Your task to perform on an android device: turn on location history Image 0: 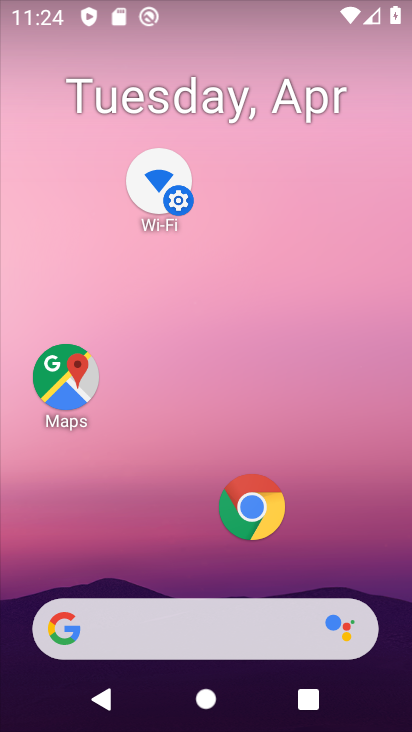
Step 0: drag from (98, 665) to (274, 334)
Your task to perform on an android device: turn on location history Image 1: 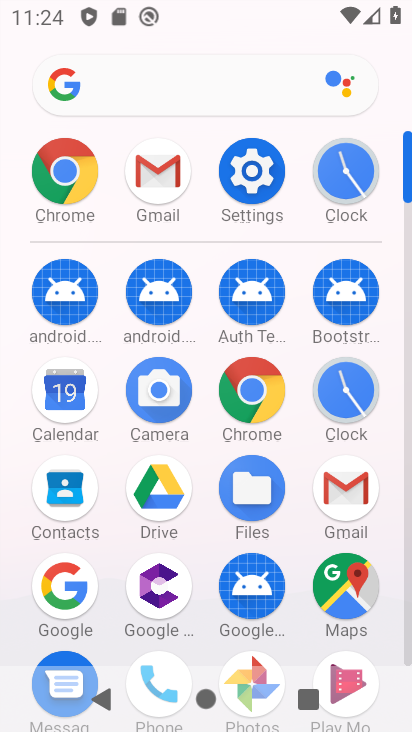
Step 1: click (258, 179)
Your task to perform on an android device: turn on location history Image 2: 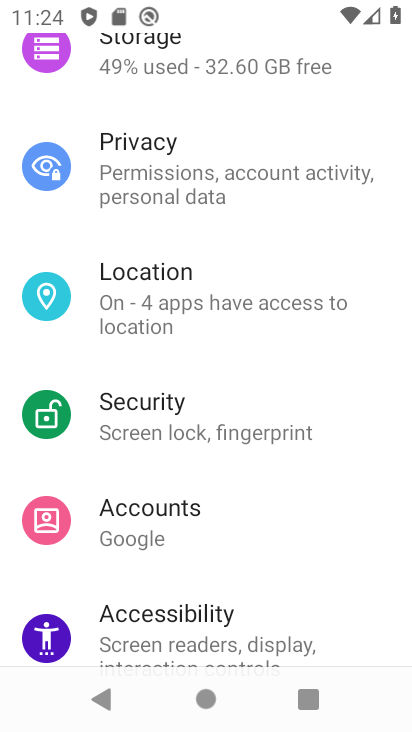
Step 2: click (225, 301)
Your task to perform on an android device: turn on location history Image 3: 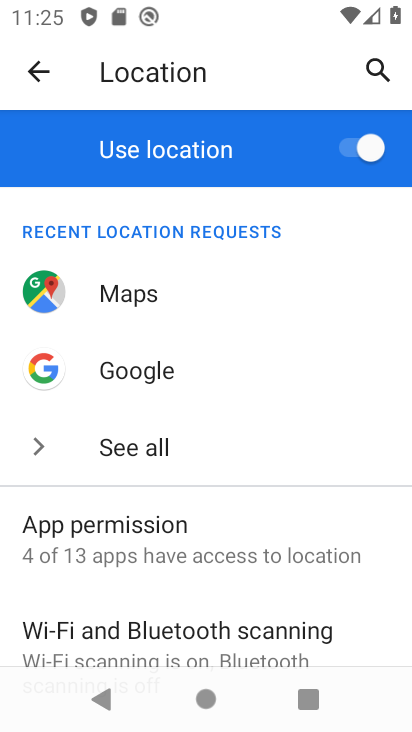
Step 3: drag from (200, 617) to (238, 273)
Your task to perform on an android device: turn on location history Image 4: 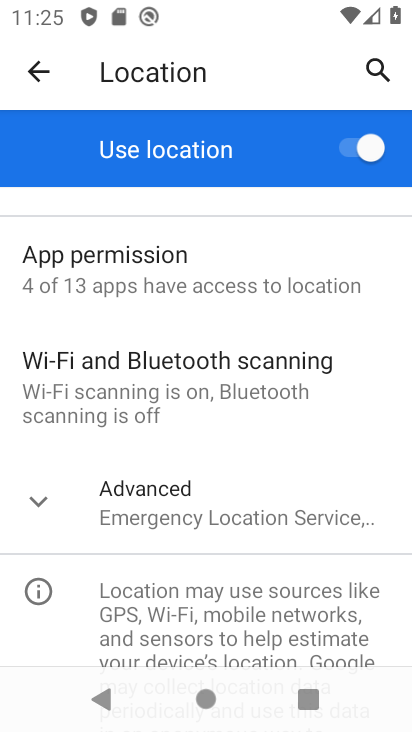
Step 4: click (235, 498)
Your task to perform on an android device: turn on location history Image 5: 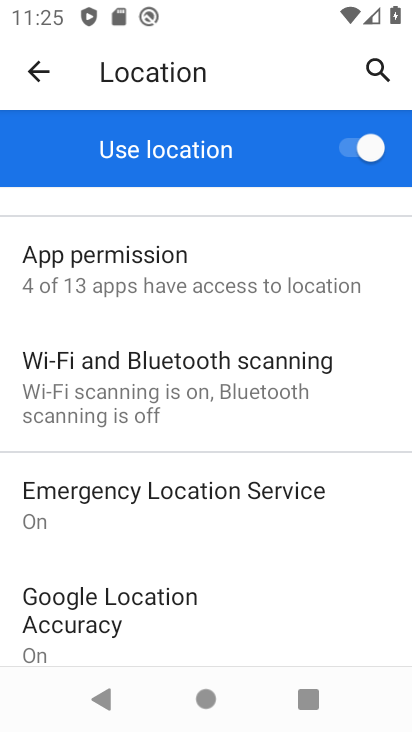
Step 5: drag from (100, 638) to (131, 364)
Your task to perform on an android device: turn on location history Image 6: 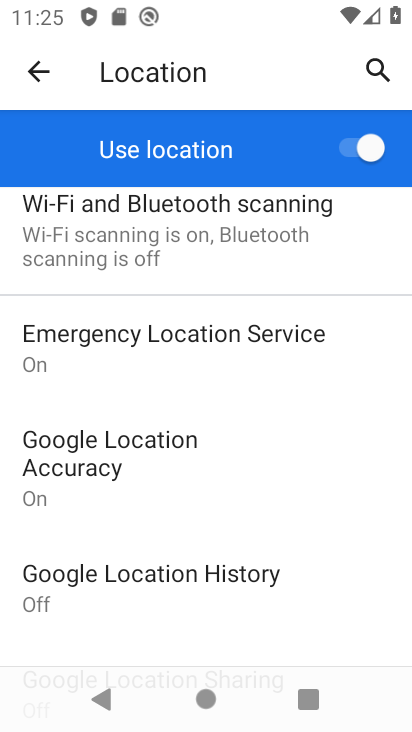
Step 6: click (187, 581)
Your task to perform on an android device: turn on location history Image 7: 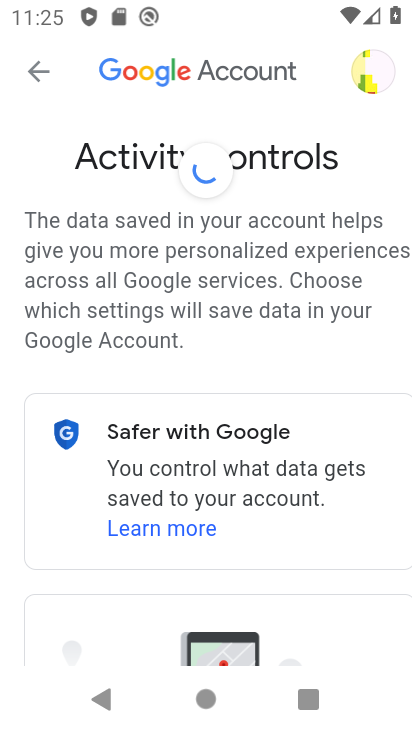
Step 7: drag from (318, 563) to (320, 318)
Your task to perform on an android device: turn on location history Image 8: 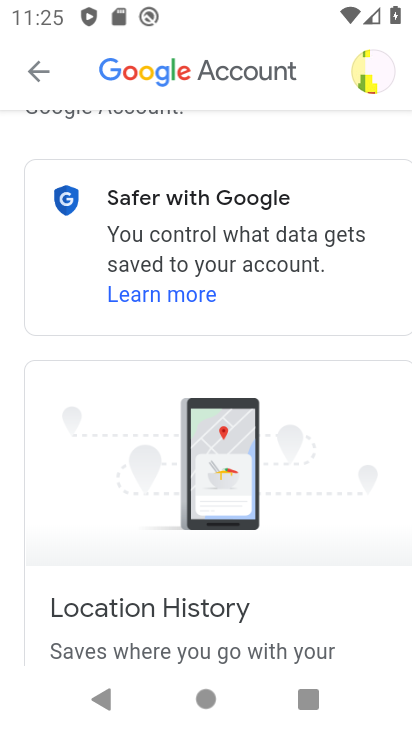
Step 8: drag from (309, 570) to (346, 291)
Your task to perform on an android device: turn on location history Image 9: 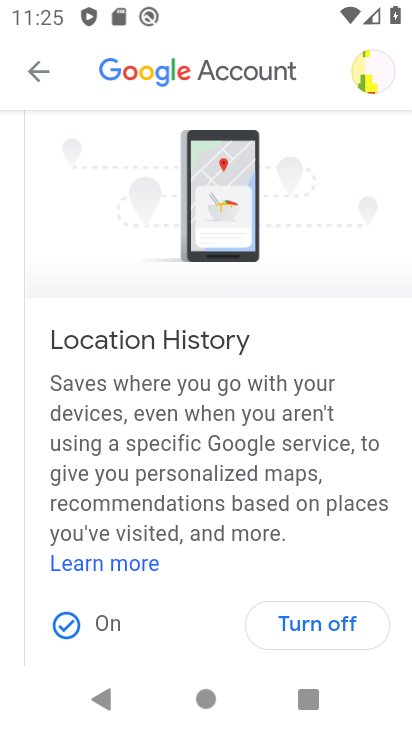
Step 9: click (317, 627)
Your task to perform on an android device: turn on location history Image 10: 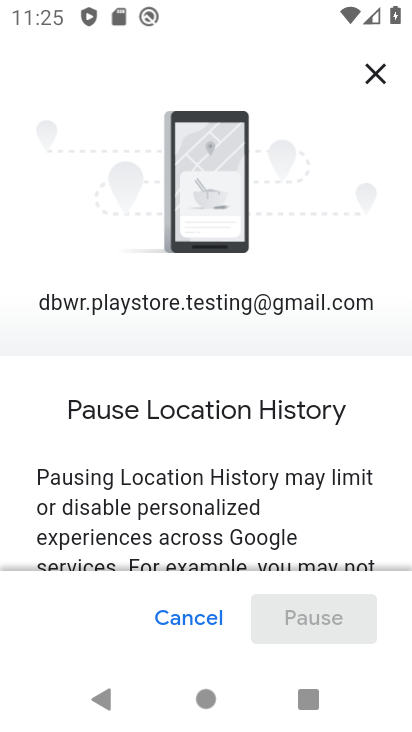
Step 10: drag from (218, 545) to (311, 192)
Your task to perform on an android device: turn on location history Image 11: 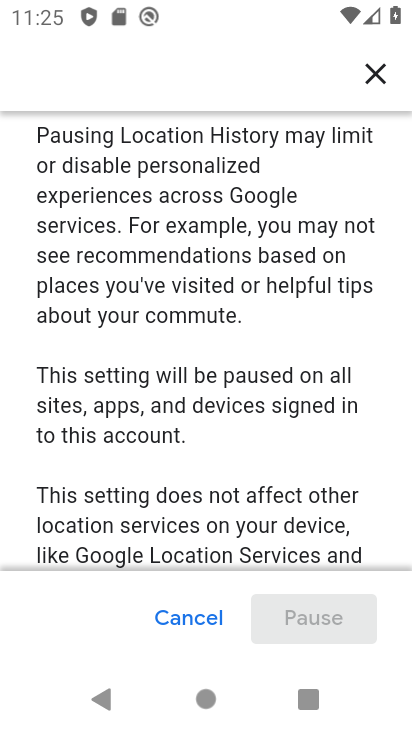
Step 11: drag from (249, 458) to (327, 163)
Your task to perform on an android device: turn on location history Image 12: 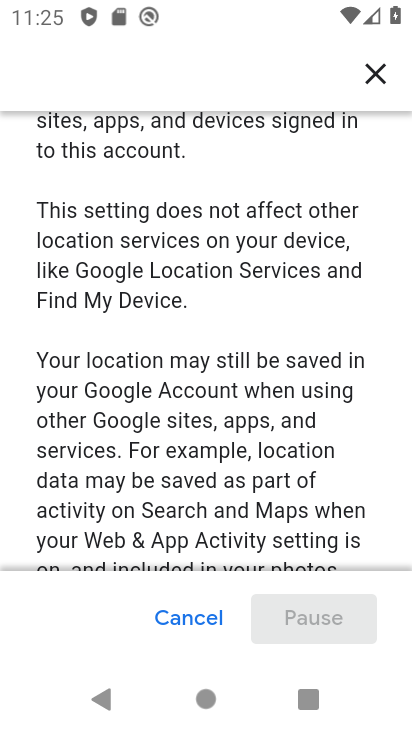
Step 12: drag from (248, 442) to (301, 184)
Your task to perform on an android device: turn on location history Image 13: 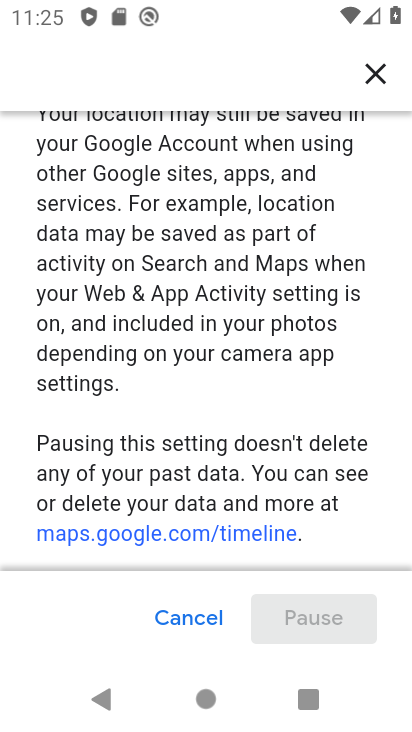
Step 13: drag from (317, 525) to (381, 181)
Your task to perform on an android device: turn on location history Image 14: 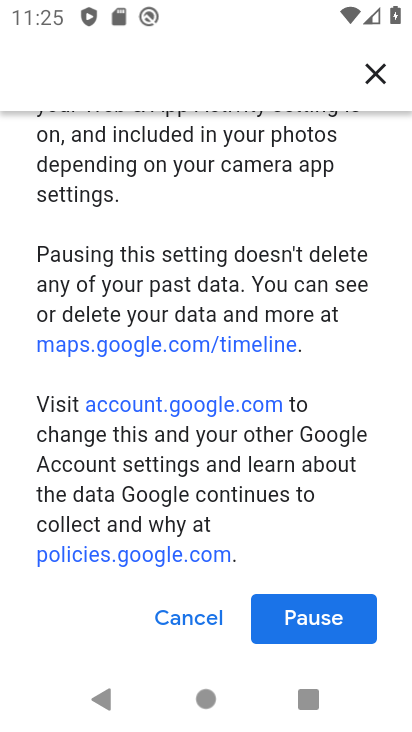
Step 14: click (270, 608)
Your task to perform on an android device: turn on location history Image 15: 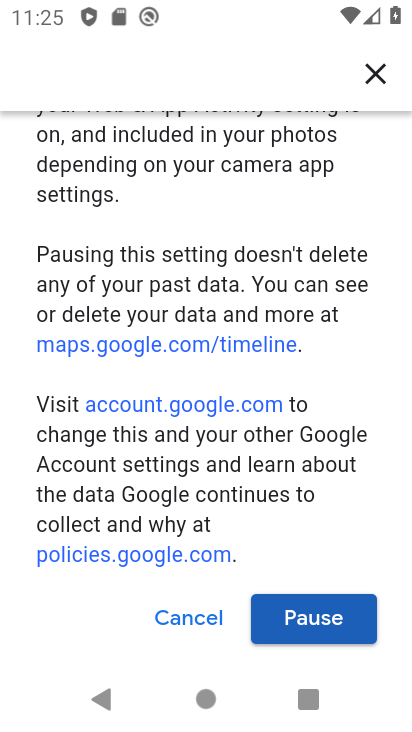
Step 15: click (323, 620)
Your task to perform on an android device: turn on location history Image 16: 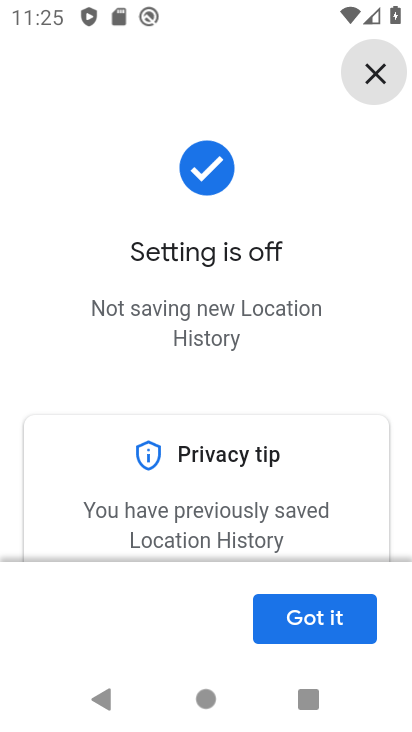
Step 16: click (323, 620)
Your task to perform on an android device: turn on location history Image 17: 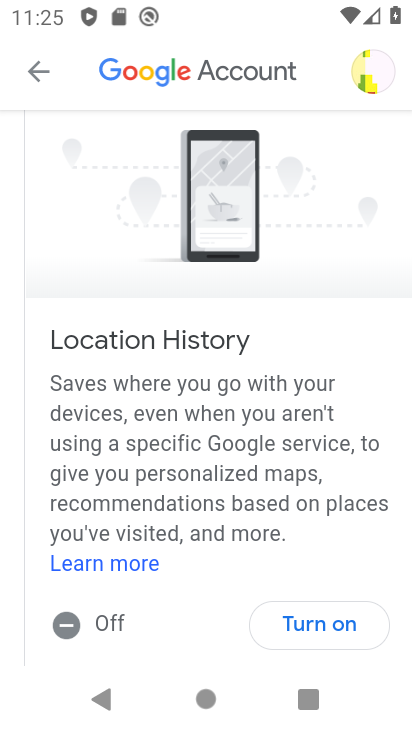
Step 17: task complete